Your task to perform on an android device: open app "Pluto TV - Live TV and Movies" (install if not already installed) and enter user name: "wools@yahoo.com" and password: "misplacing" Image 0: 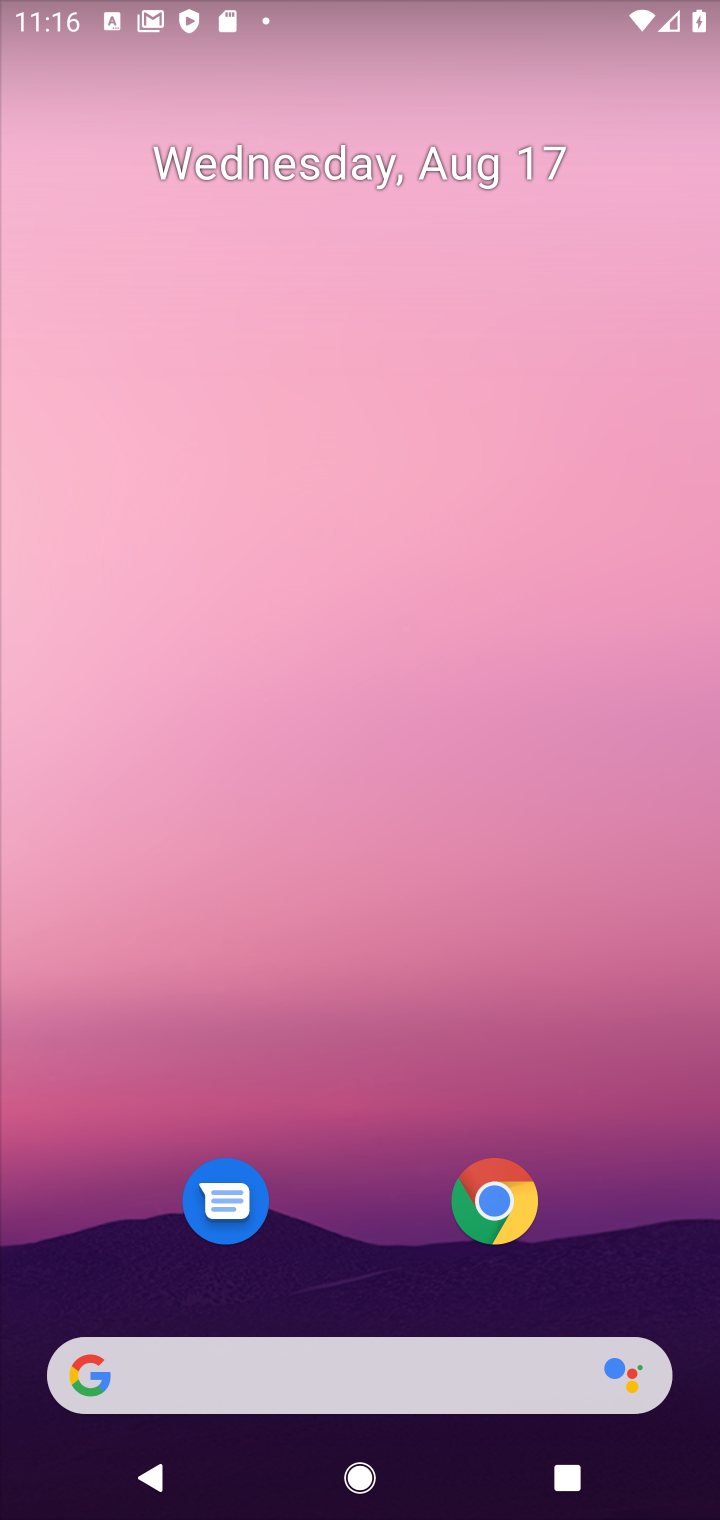
Step 0: drag from (351, 1078) to (427, 24)
Your task to perform on an android device: open app "Pluto TV - Live TV and Movies" (install if not already installed) and enter user name: "wools@yahoo.com" and password: "misplacing" Image 1: 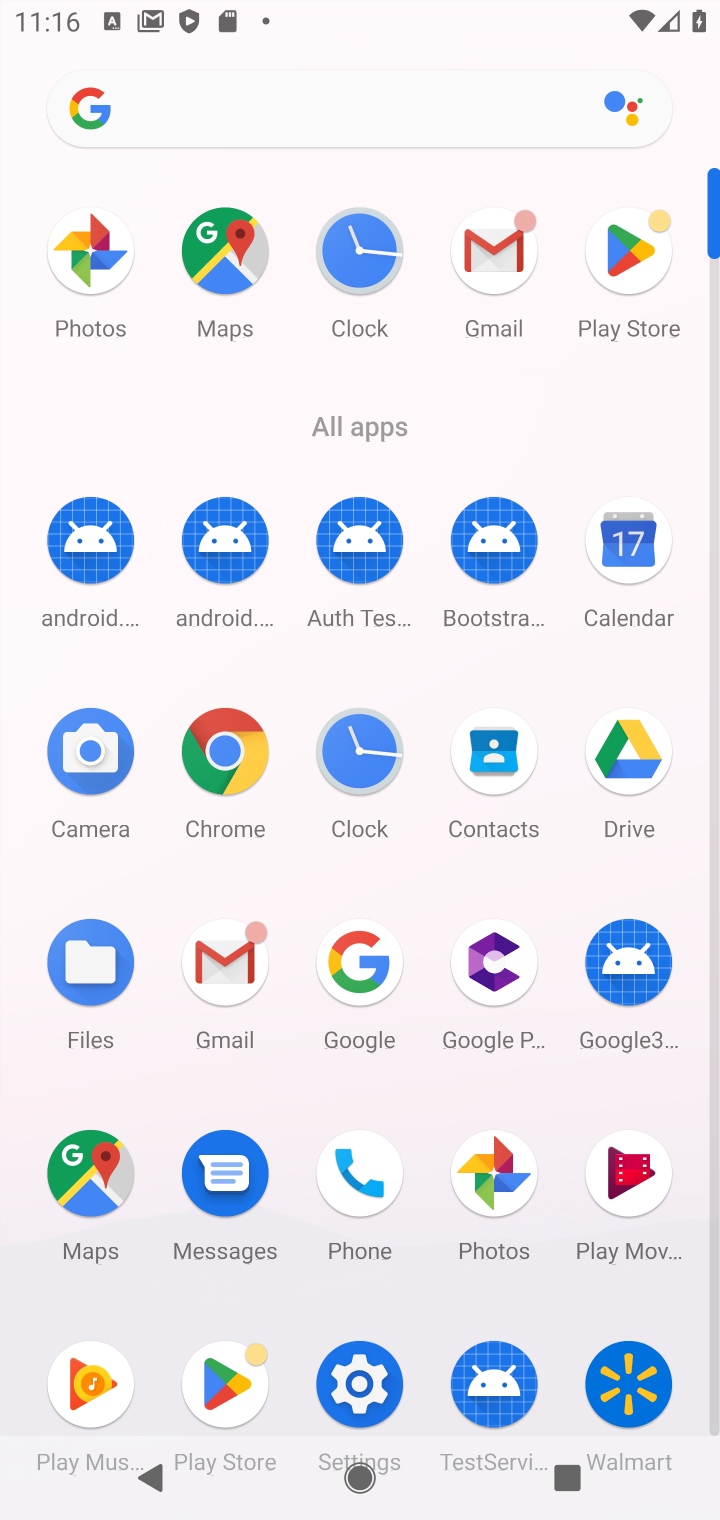
Step 1: click (619, 287)
Your task to perform on an android device: open app "Pluto TV - Live TV and Movies" (install if not already installed) and enter user name: "wools@yahoo.com" and password: "misplacing" Image 2: 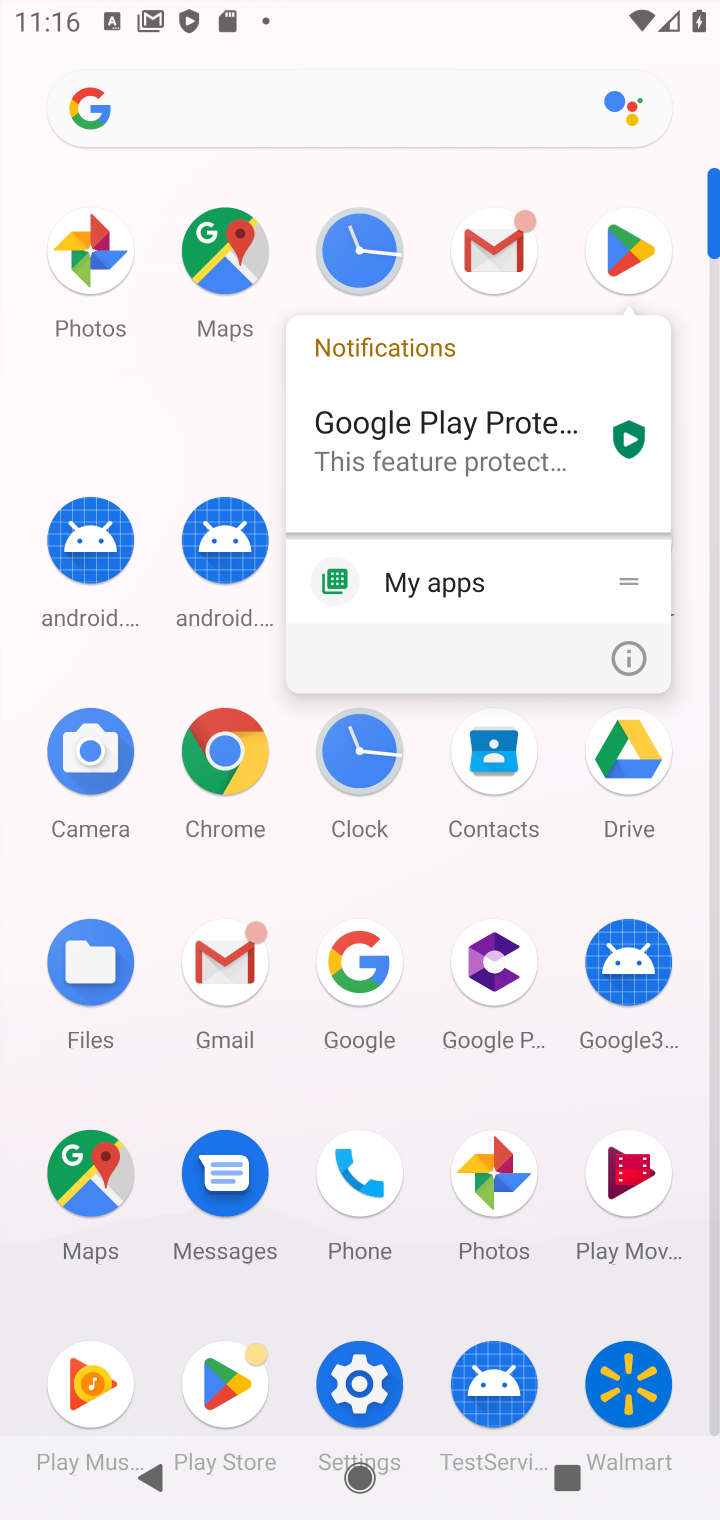
Step 2: click (647, 242)
Your task to perform on an android device: open app "Pluto TV - Live TV and Movies" (install if not already installed) and enter user name: "wools@yahoo.com" and password: "misplacing" Image 3: 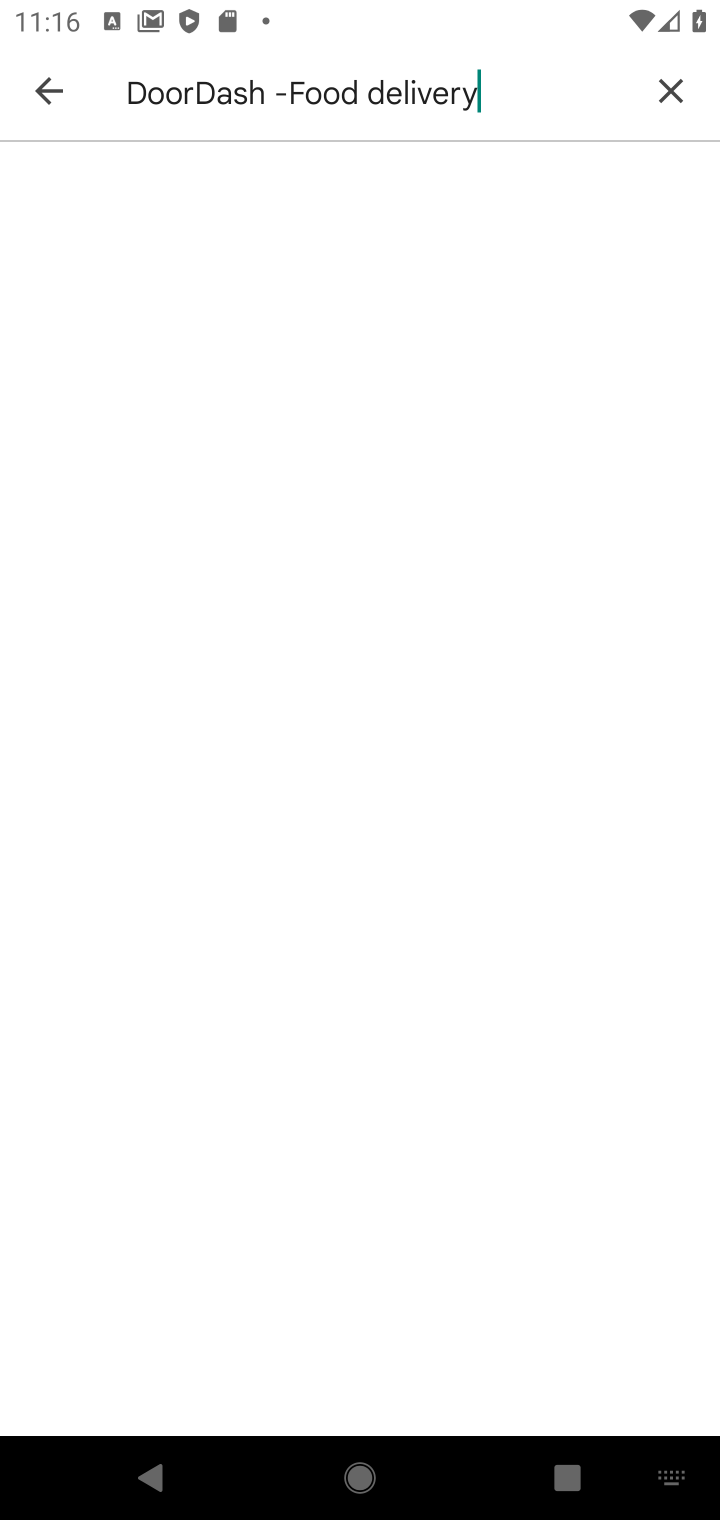
Step 3: click (671, 94)
Your task to perform on an android device: open app "Pluto TV - Live TV and Movies" (install if not already installed) and enter user name: "wools@yahoo.com" and password: "misplacing" Image 4: 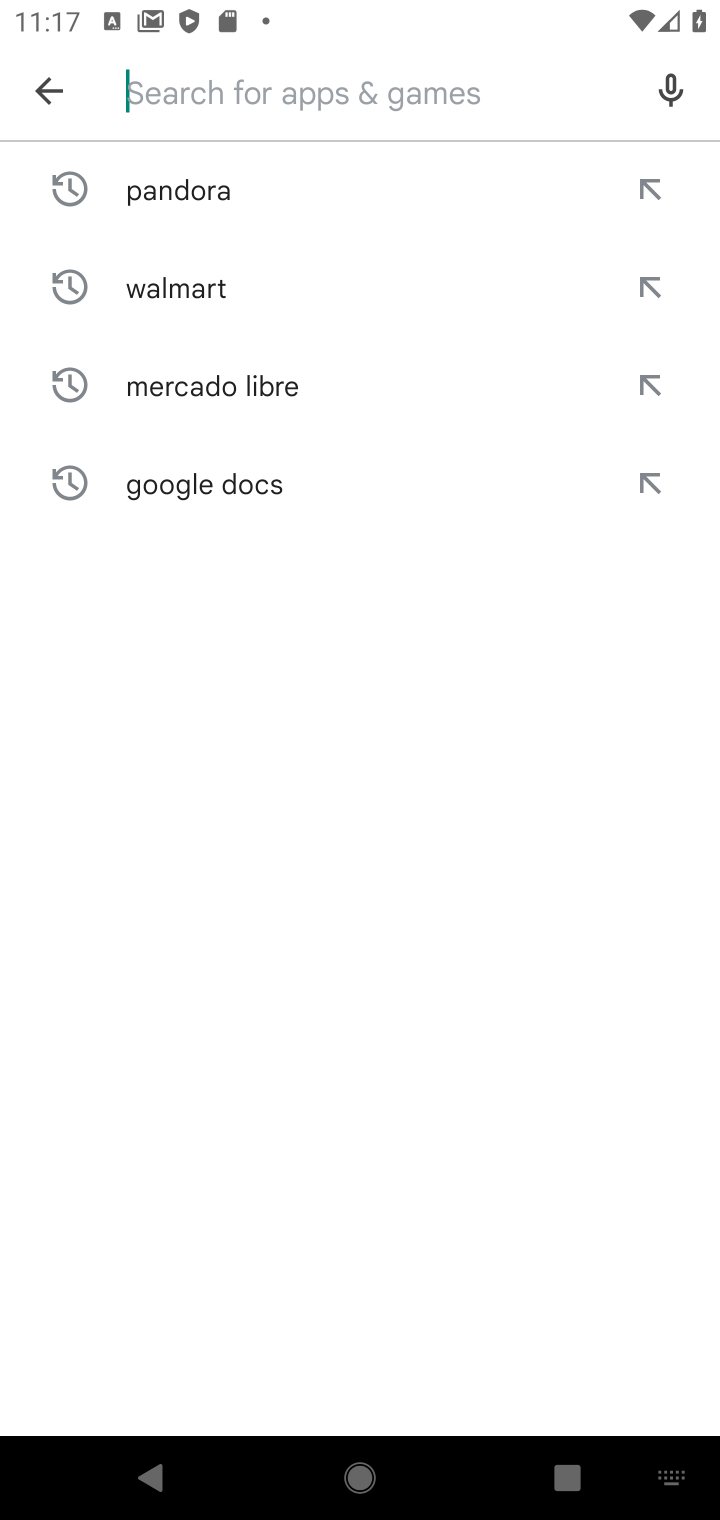
Step 4: type "Pluto TV"
Your task to perform on an android device: open app "Pluto TV - Live TV and Movies" (install if not already installed) and enter user name: "wools@yahoo.com" and password: "misplacing" Image 5: 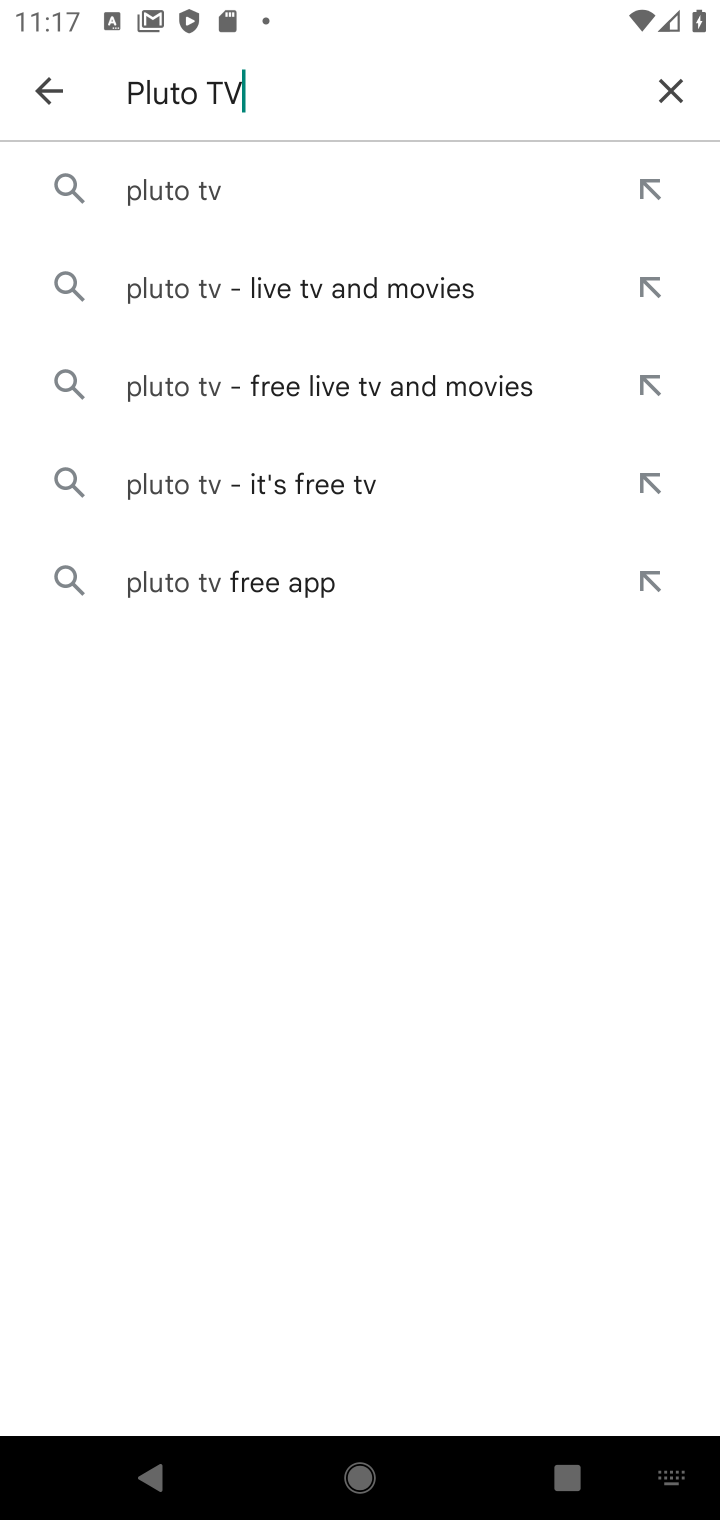
Step 5: click (118, 196)
Your task to perform on an android device: open app "Pluto TV - Live TV and Movies" (install if not already installed) and enter user name: "wools@yahoo.com" and password: "misplacing" Image 6: 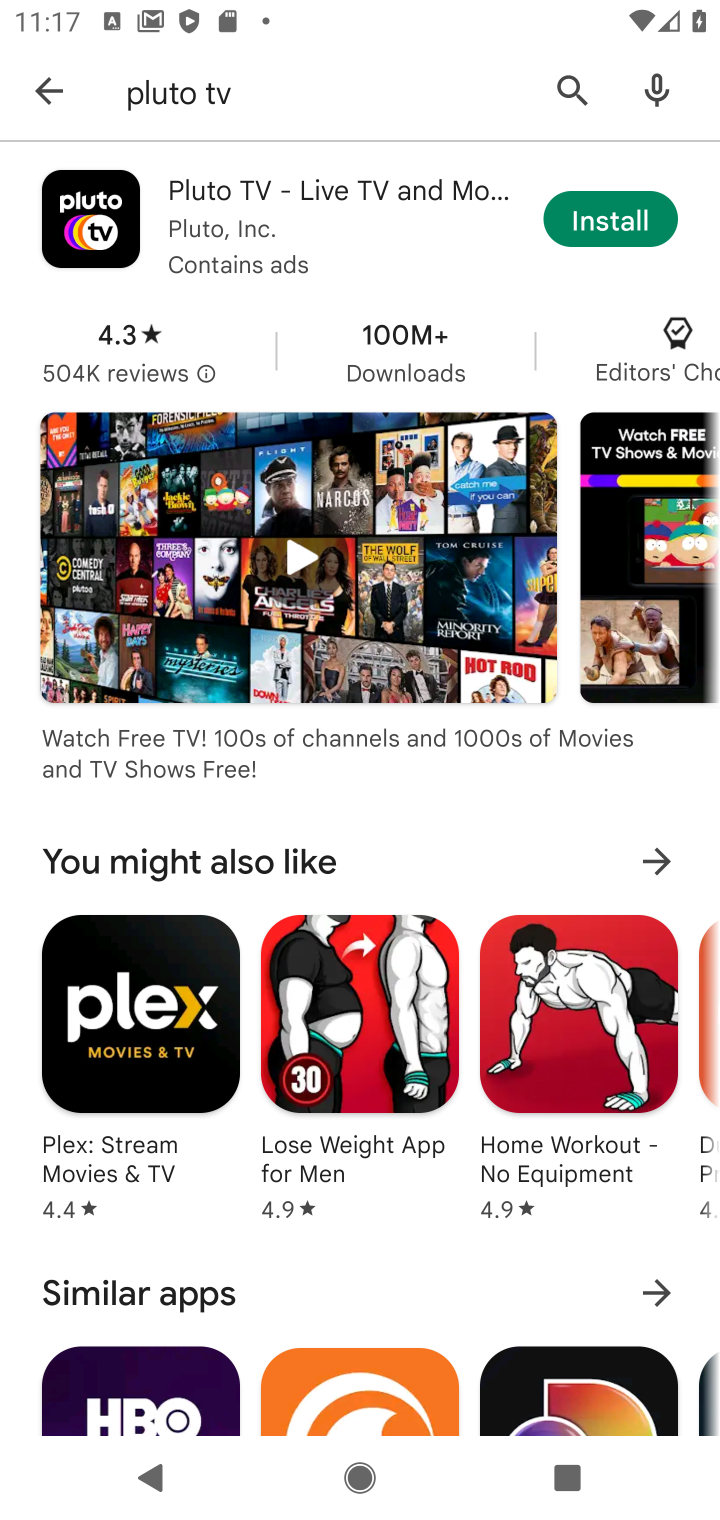
Step 6: click (582, 221)
Your task to perform on an android device: open app "Pluto TV - Live TV and Movies" (install if not already installed) and enter user name: "wools@yahoo.com" and password: "misplacing" Image 7: 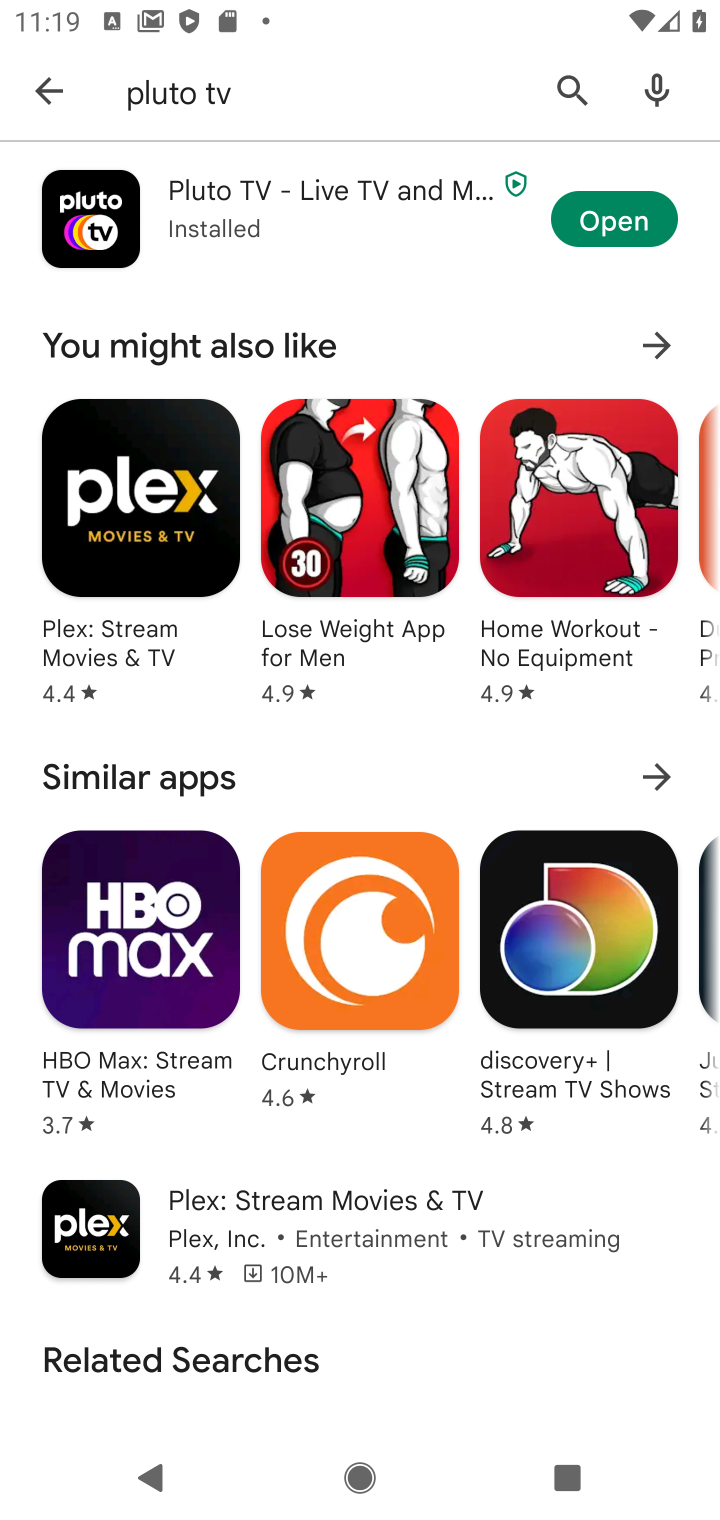
Step 7: click (595, 226)
Your task to perform on an android device: open app "Pluto TV - Live TV and Movies" (install if not already installed) and enter user name: "wools@yahoo.com" and password: "misplacing" Image 8: 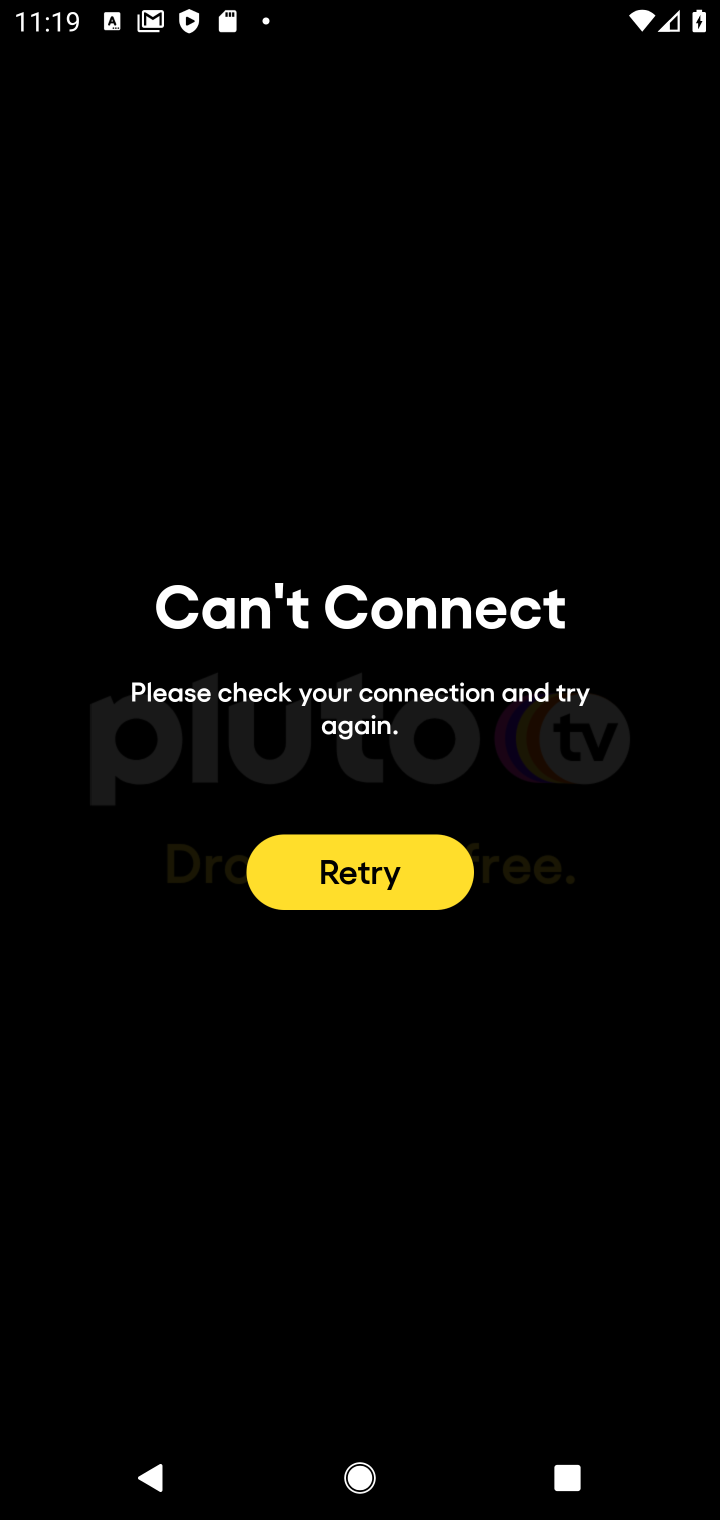
Step 8: click (365, 860)
Your task to perform on an android device: open app "Pluto TV - Live TV and Movies" (install if not already installed) and enter user name: "wools@yahoo.com" and password: "misplacing" Image 9: 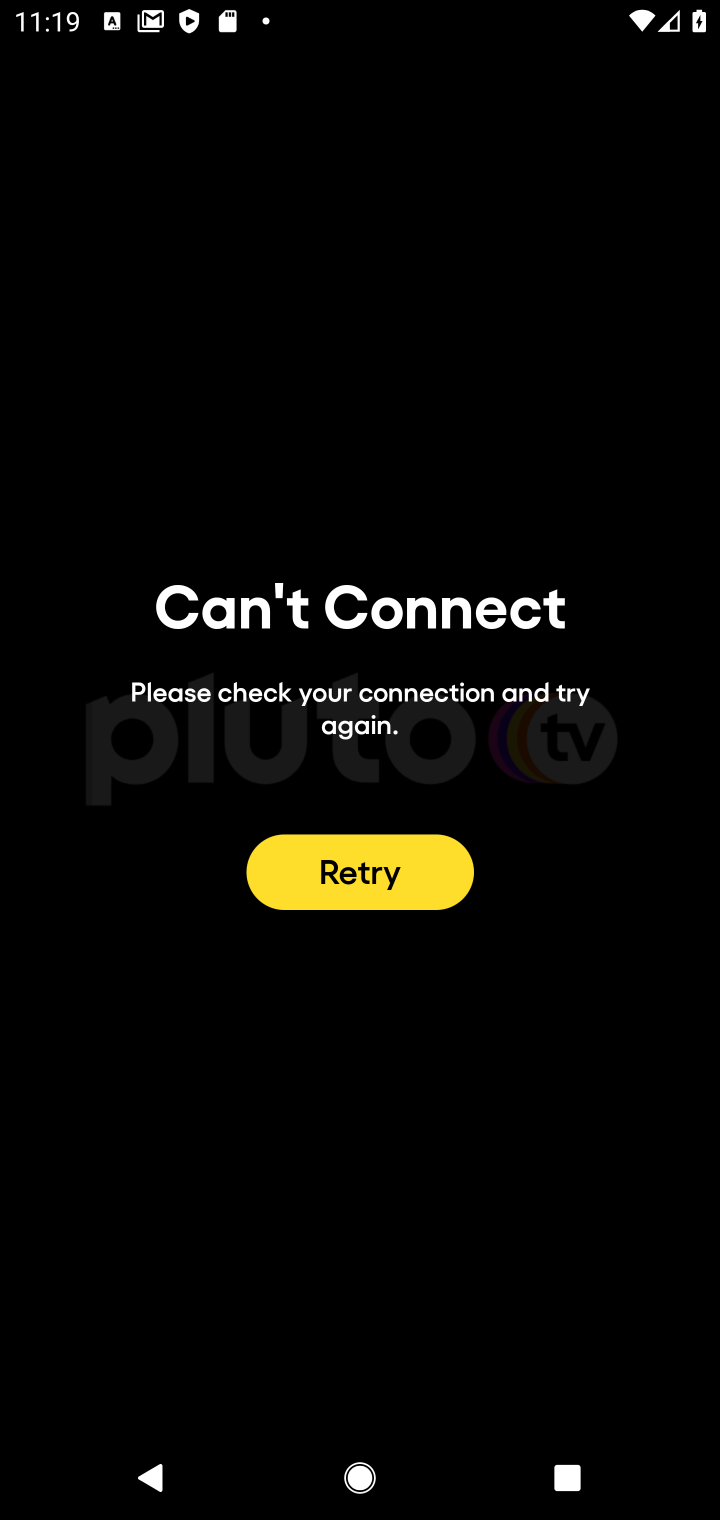
Step 9: click (387, 898)
Your task to perform on an android device: open app "Pluto TV - Live TV and Movies" (install if not already installed) and enter user name: "wools@yahoo.com" and password: "misplacing" Image 10: 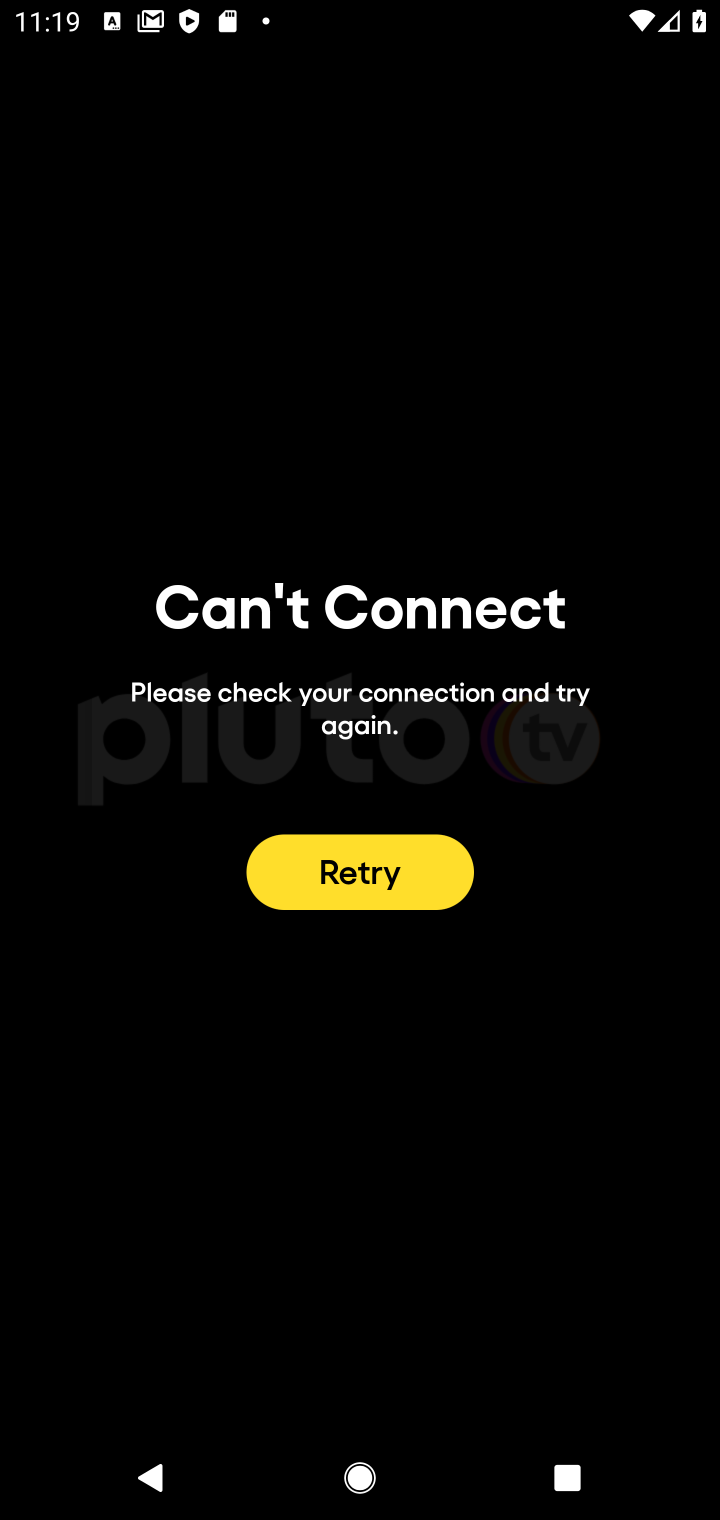
Step 10: task complete